Your task to perform on an android device: Open calendar and show me the second week of next month Image 0: 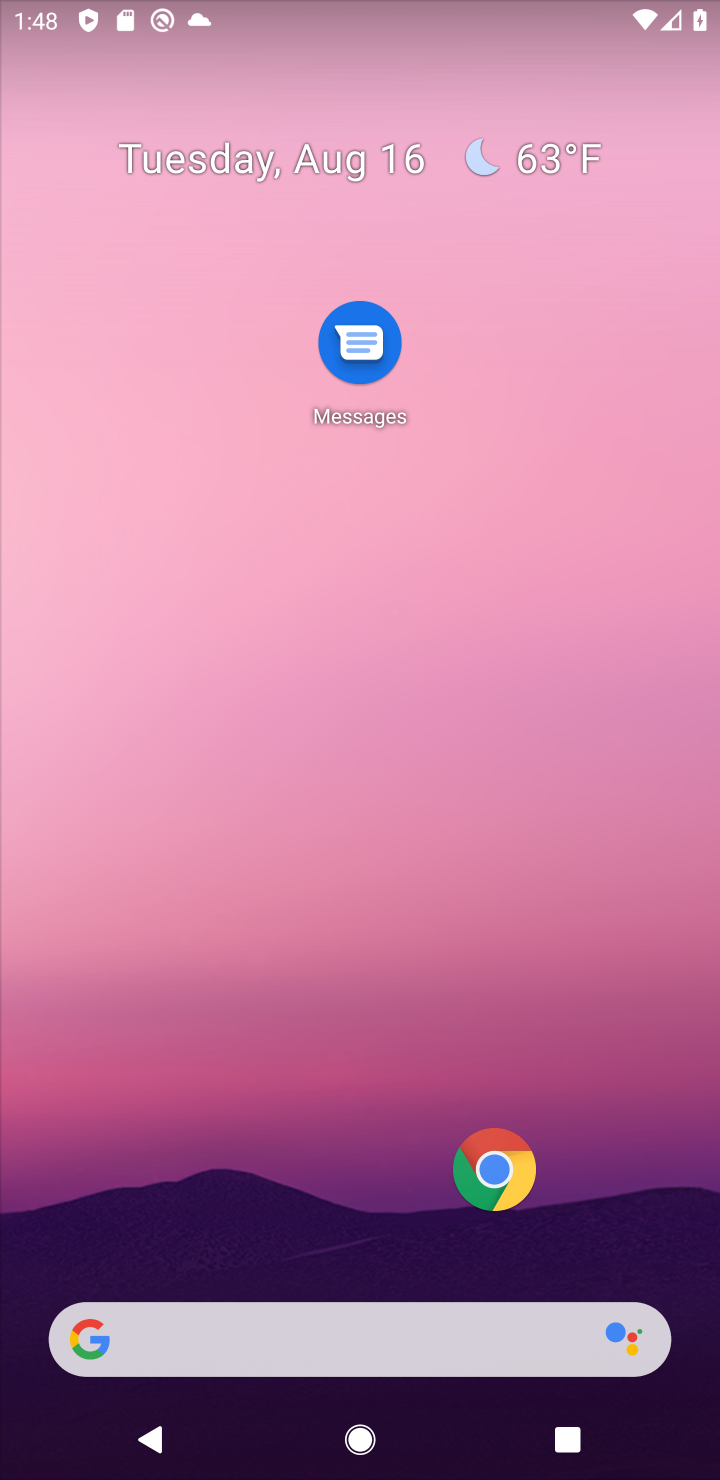
Step 0: drag from (41, 1403) to (456, 816)
Your task to perform on an android device: Open calendar and show me the second week of next month Image 1: 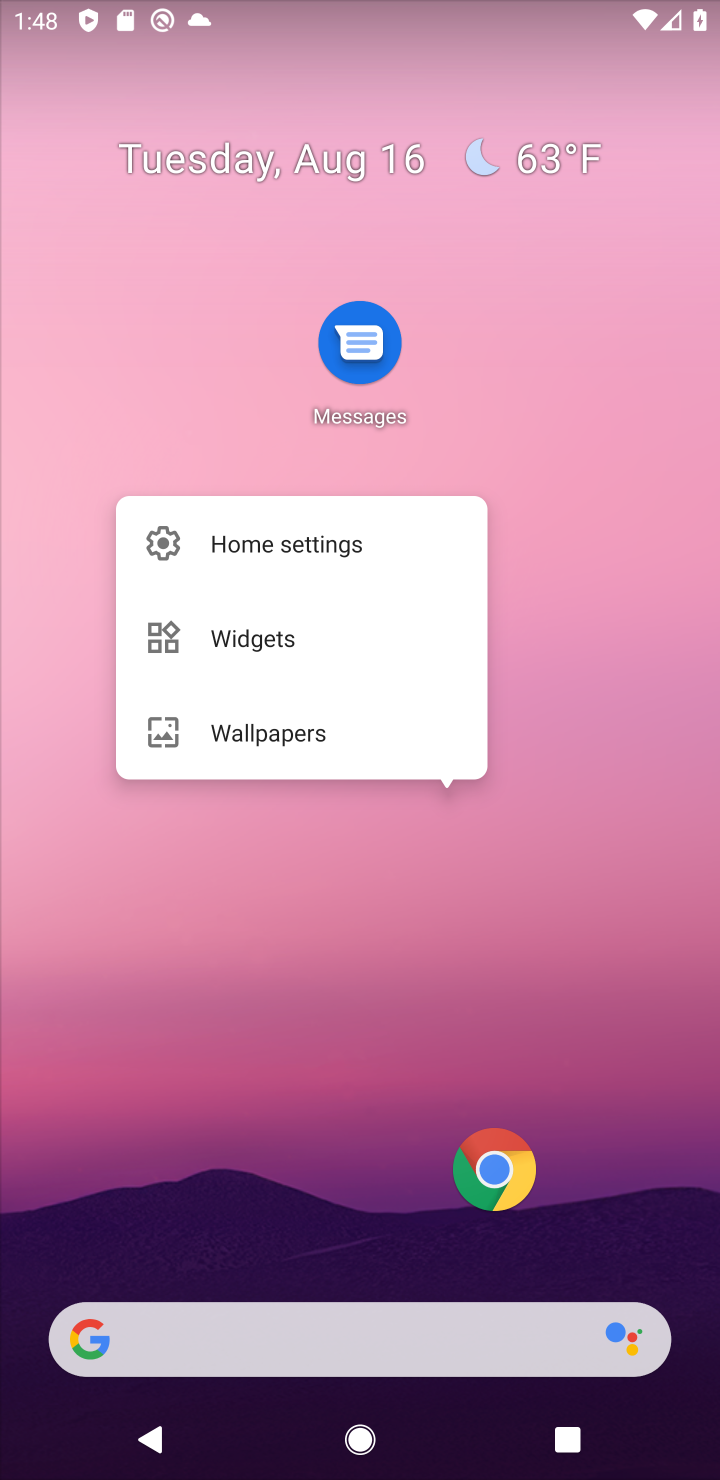
Step 1: drag from (26, 1417) to (258, 1099)
Your task to perform on an android device: Open calendar and show me the second week of next month Image 2: 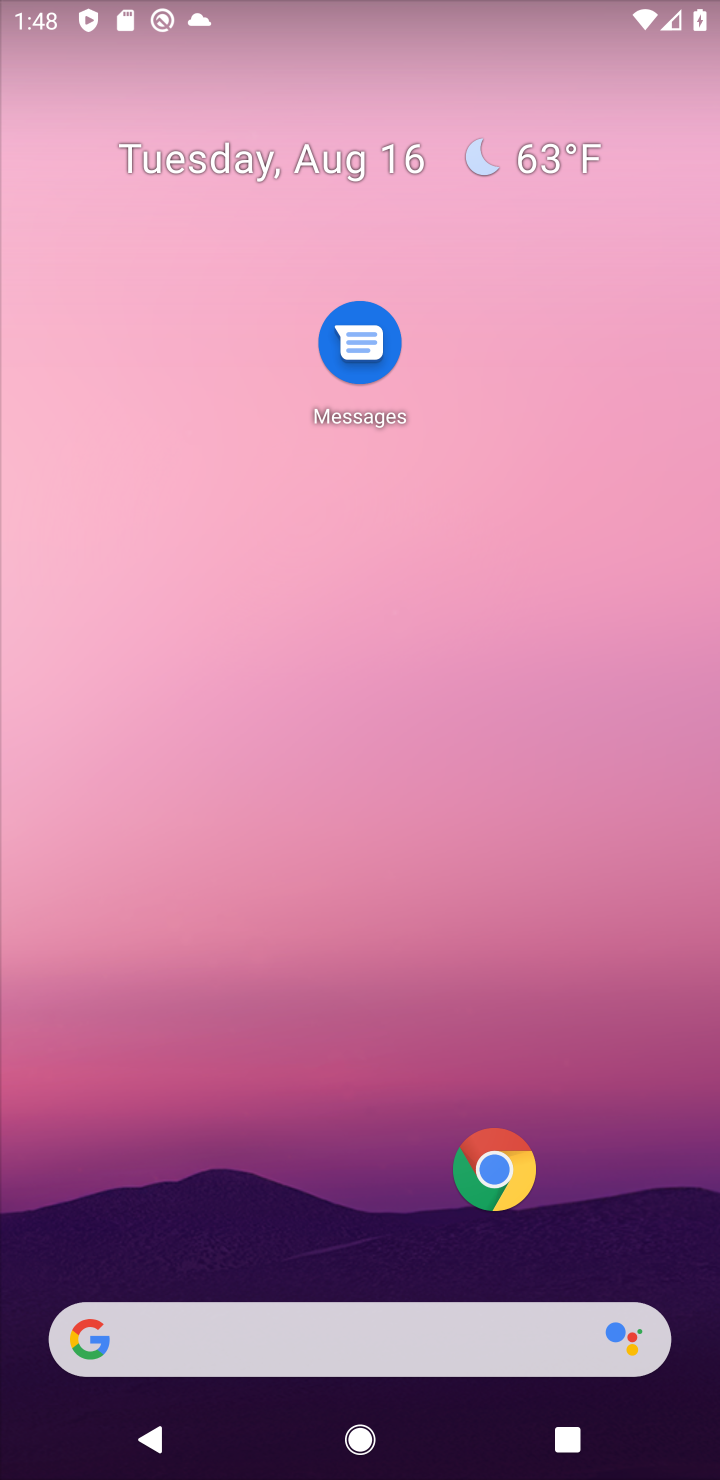
Step 2: click (355, 915)
Your task to perform on an android device: Open calendar and show me the second week of next month Image 3: 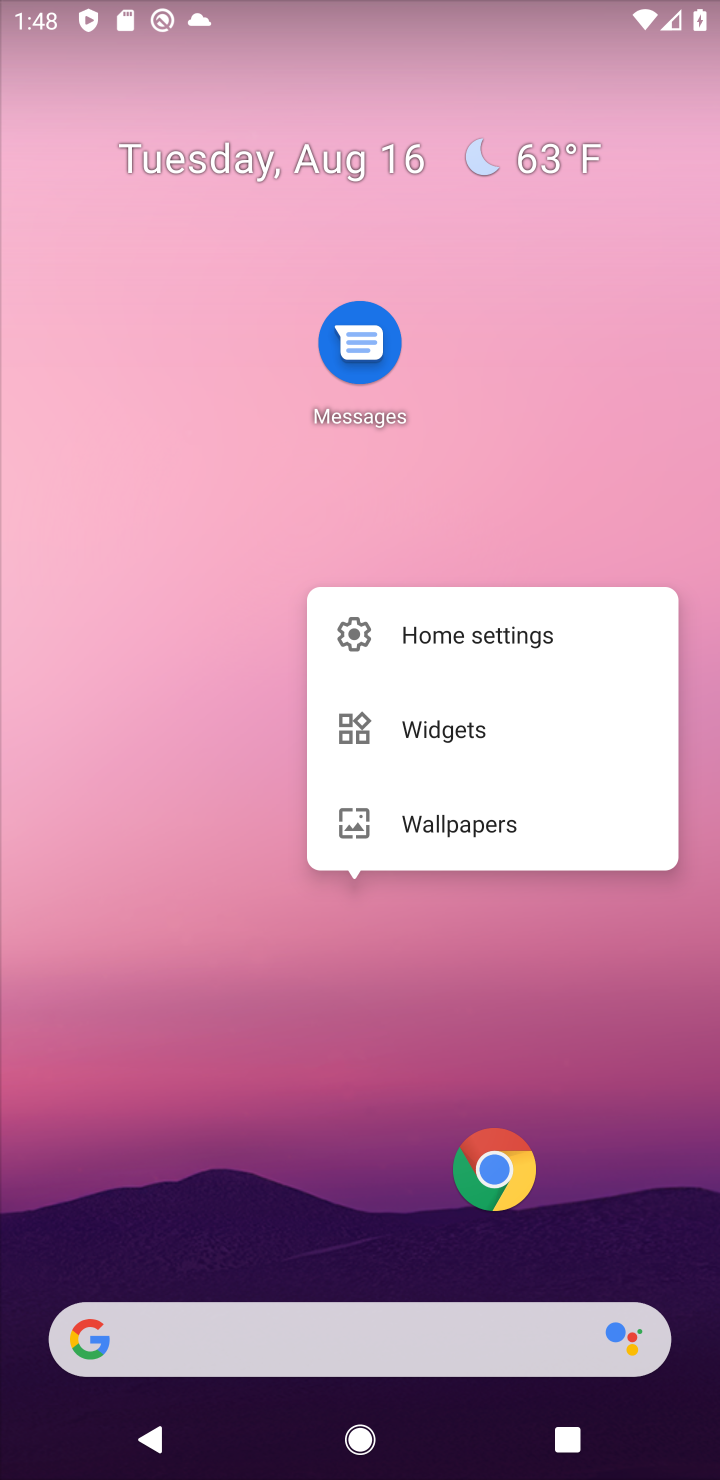
Step 3: task complete